Your task to perform on an android device: turn on translation in the chrome app Image 0: 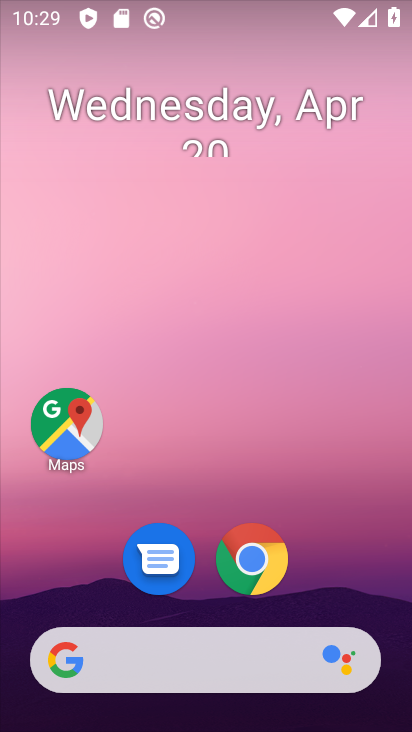
Step 0: drag from (306, 595) to (250, 1)
Your task to perform on an android device: turn on translation in the chrome app Image 1: 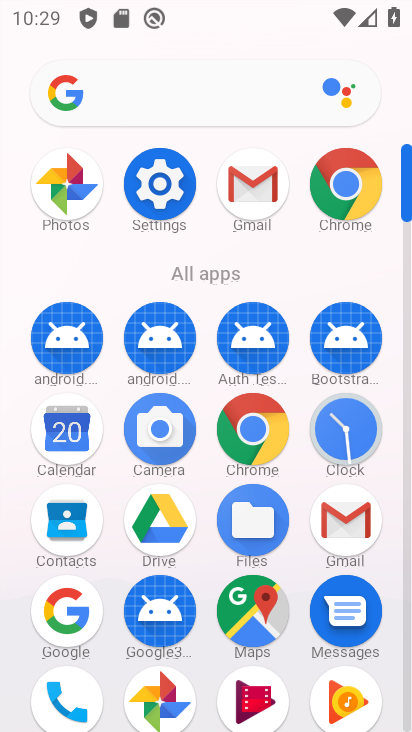
Step 1: click (239, 433)
Your task to perform on an android device: turn on translation in the chrome app Image 2: 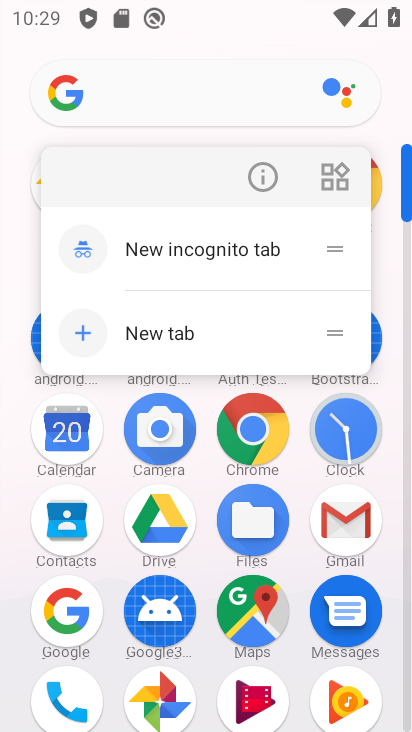
Step 2: click (239, 433)
Your task to perform on an android device: turn on translation in the chrome app Image 3: 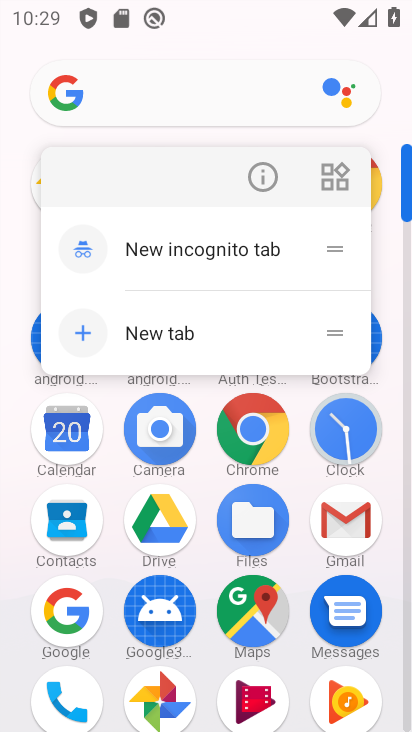
Step 3: click (239, 433)
Your task to perform on an android device: turn on translation in the chrome app Image 4: 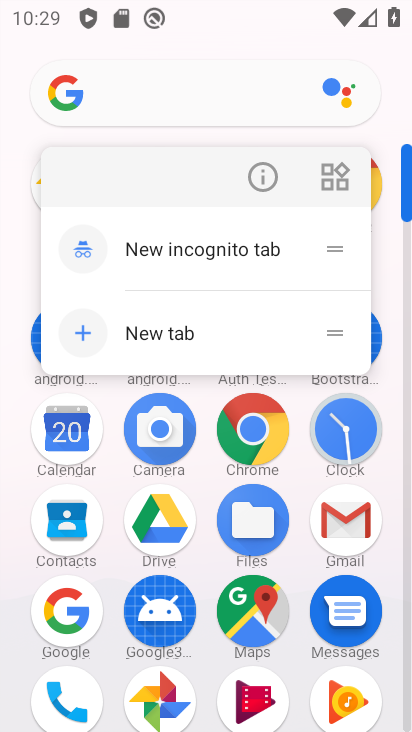
Step 4: click (254, 434)
Your task to perform on an android device: turn on translation in the chrome app Image 5: 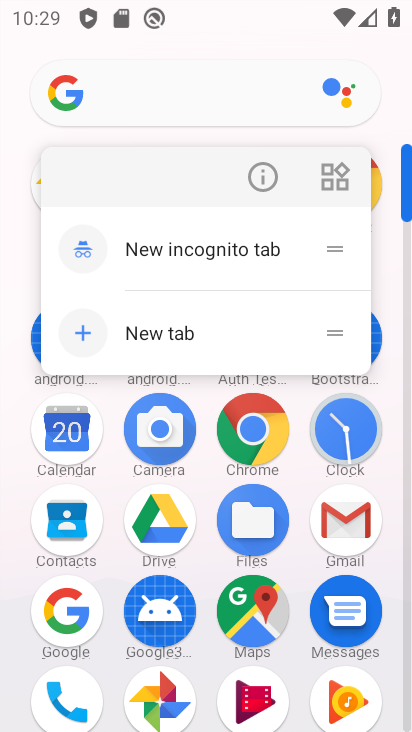
Step 5: click (254, 434)
Your task to perform on an android device: turn on translation in the chrome app Image 6: 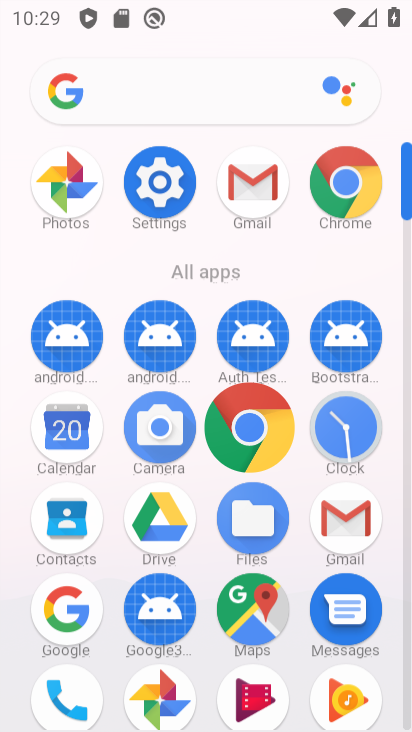
Step 6: click (254, 434)
Your task to perform on an android device: turn on translation in the chrome app Image 7: 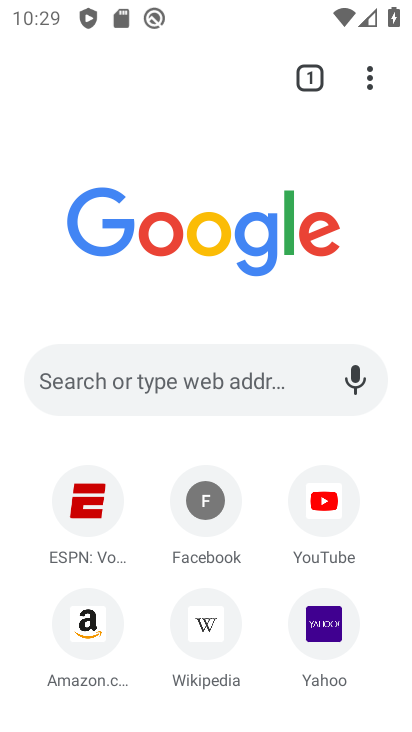
Step 7: click (253, 434)
Your task to perform on an android device: turn on translation in the chrome app Image 8: 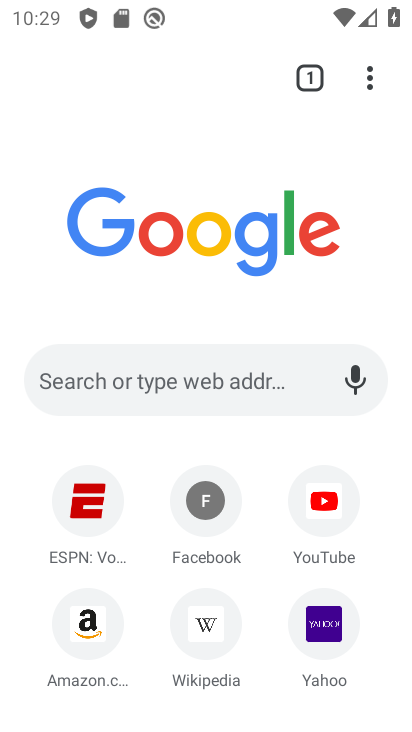
Step 8: click (253, 434)
Your task to perform on an android device: turn on translation in the chrome app Image 9: 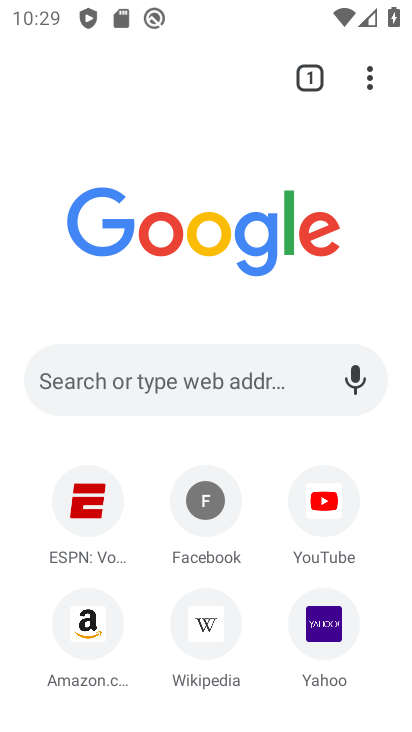
Step 9: drag from (374, 81) to (174, 616)
Your task to perform on an android device: turn on translation in the chrome app Image 10: 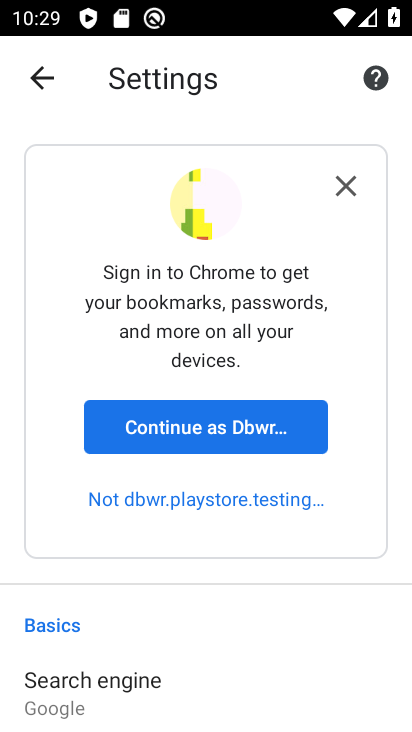
Step 10: drag from (137, 611) to (165, 86)
Your task to perform on an android device: turn on translation in the chrome app Image 11: 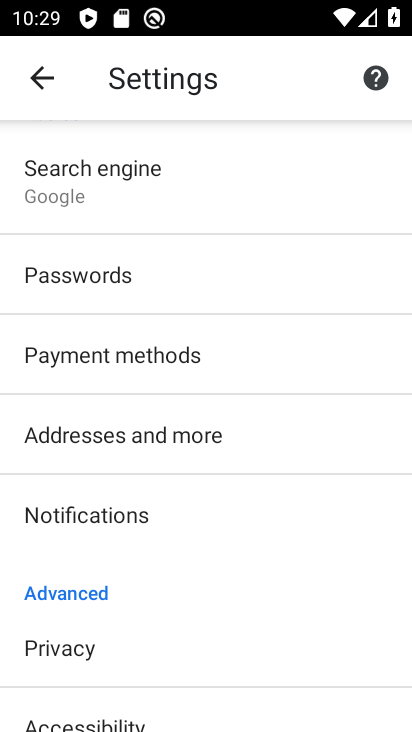
Step 11: drag from (148, 660) to (179, 92)
Your task to perform on an android device: turn on translation in the chrome app Image 12: 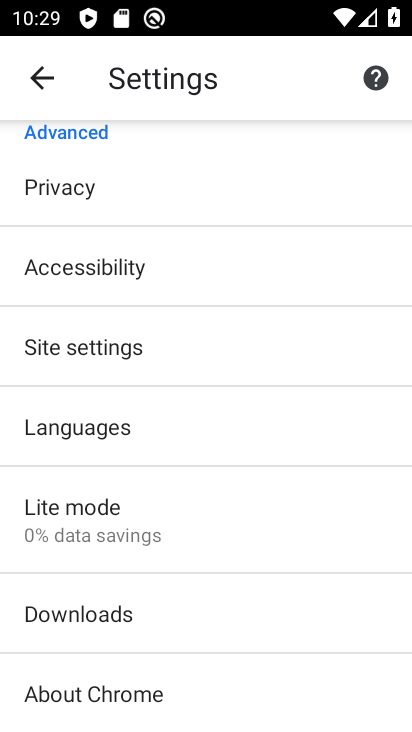
Step 12: click (147, 421)
Your task to perform on an android device: turn on translation in the chrome app Image 13: 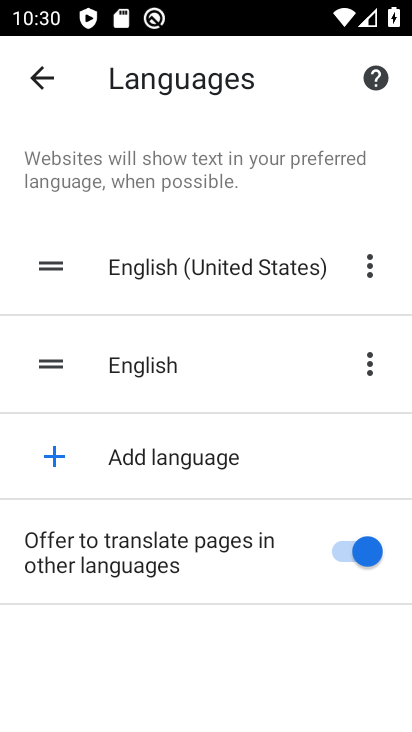
Step 13: task complete